Your task to perform on an android device: set the stopwatch Image 0: 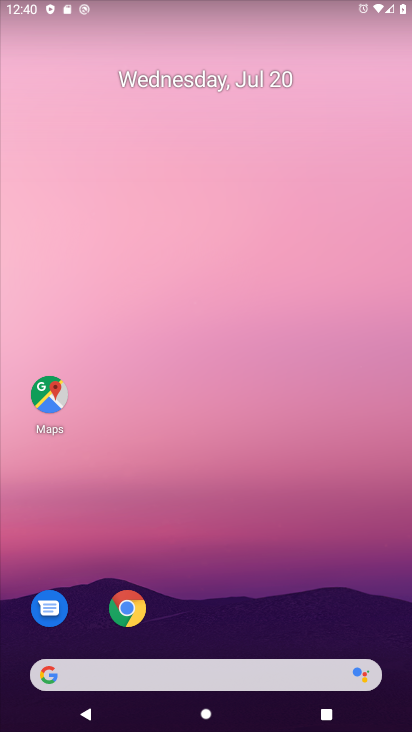
Step 0: drag from (218, 672) to (183, 159)
Your task to perform on an android device: set the stopwatch Image 1: 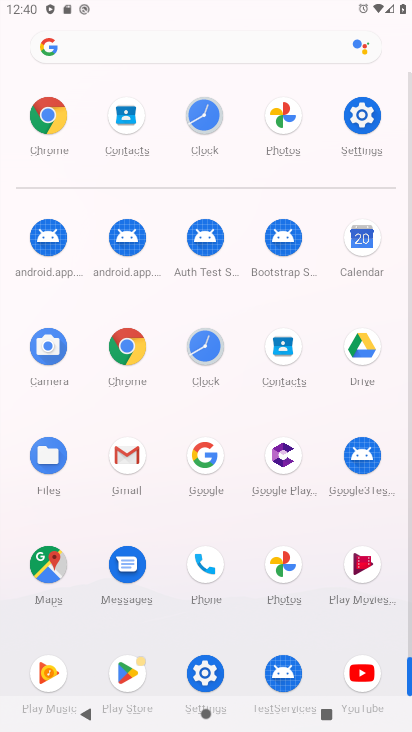
Step 1: click (205, 118)
Your task to perform on an android device: set the stopwatch Image 2: 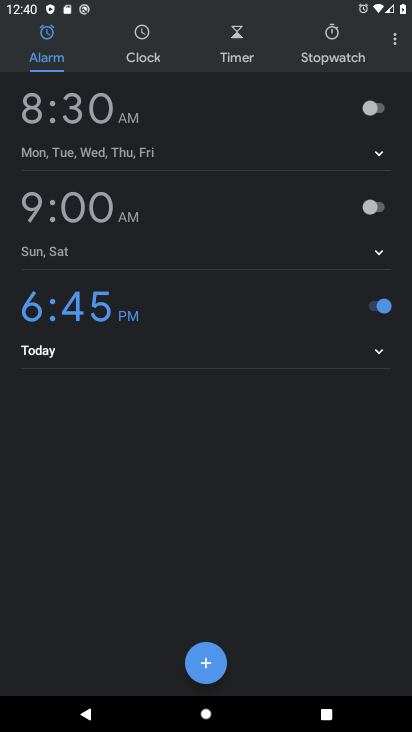
Step 2: click (332, 40)
Your task to perform on an android device: set the stopwatch Image 3: 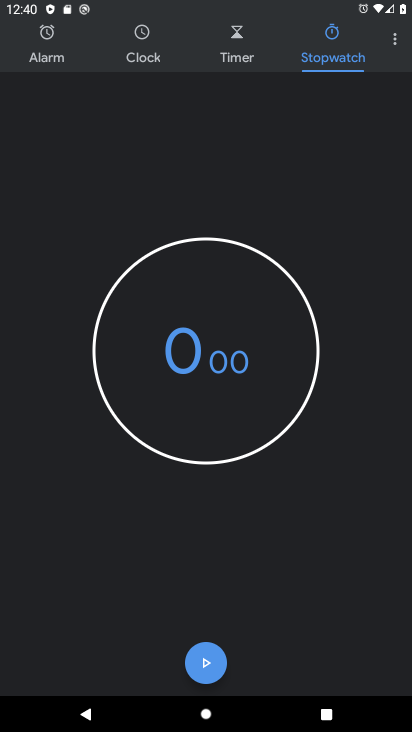
Step 3: click (208, 655)
Your task to perform on an android device: set the stopwatch Image 4: 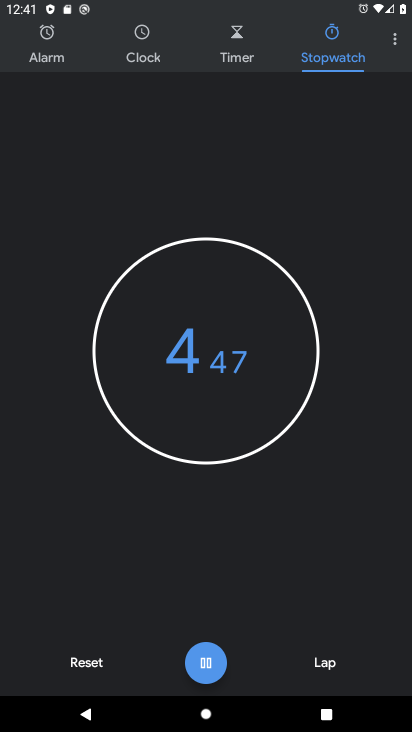
Step 4: click (204, 659)
Your task to perform on an android device: set the stopwatch Image 5: 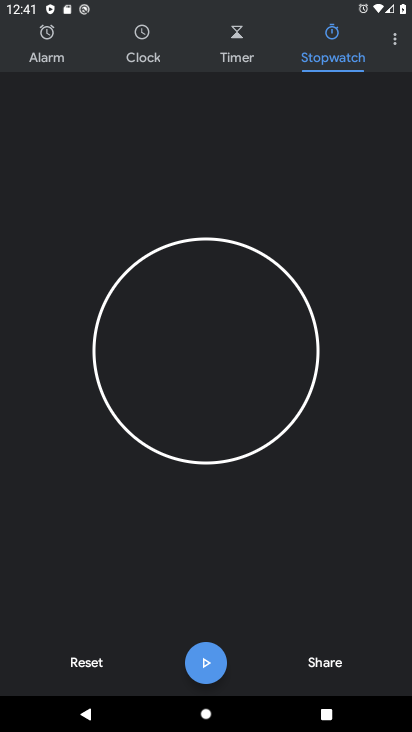
Step 5: task complete